Your task to perform on an android device: Open calendar and show me the second week of next month Image 0: 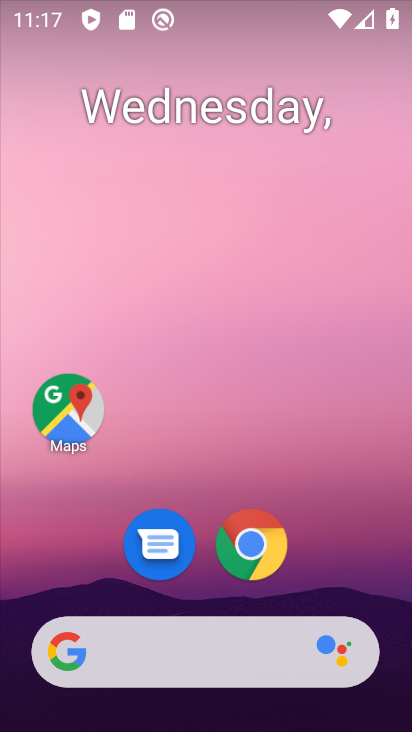
Step 0: drag from (377, 563) to (308, 108)
Your task to perform on an android device: Open calendar and show me the second week of next month Image 1: 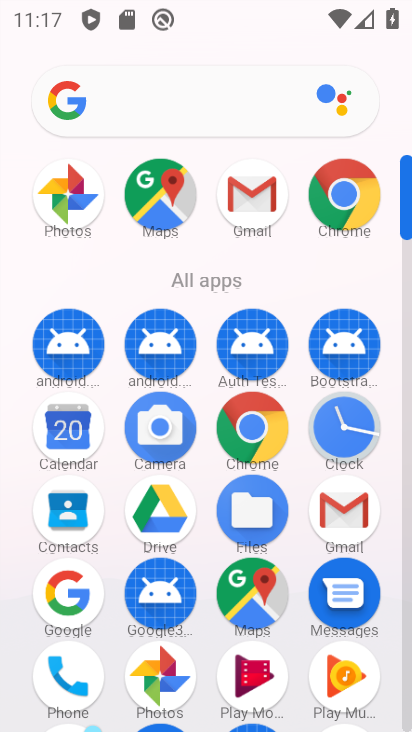
Step 1: click (92, 424)
Your task to perform on an android device: Open calendar and show me the second week of next month Image 2: 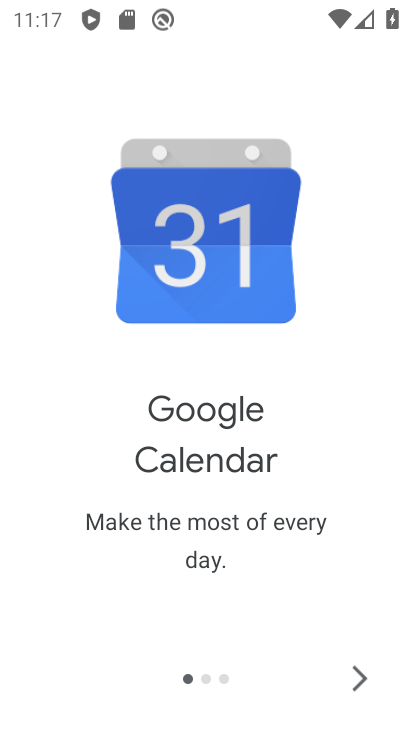
Step 2: click (369, 676)
Your task to perform on an android device: Open calendar and show me the second week of next month Image 3: 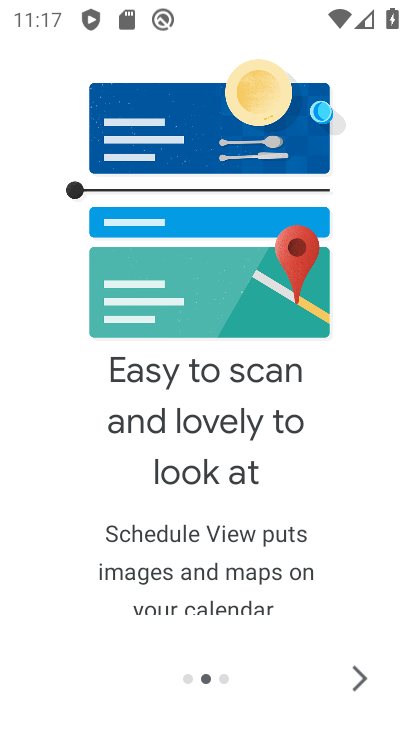
Step 3: click (364, 678)
Your task to perform on an android device: Open calendar and show me the second week of next month Image 4: 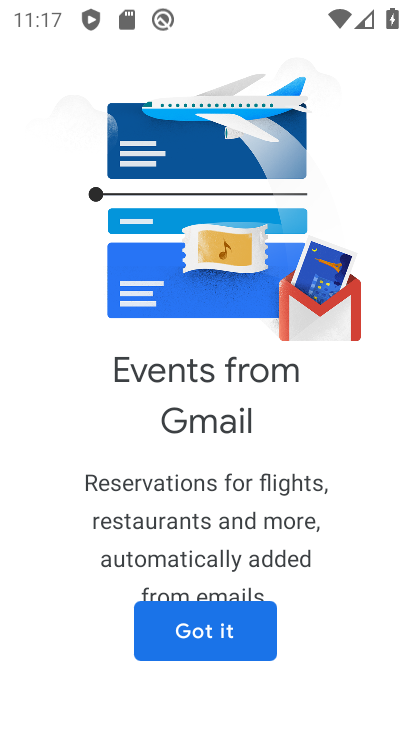
Step 4: click (226, 634)
Your task to perform on an android device: Open calendar and show me the second week of next month Image 5: 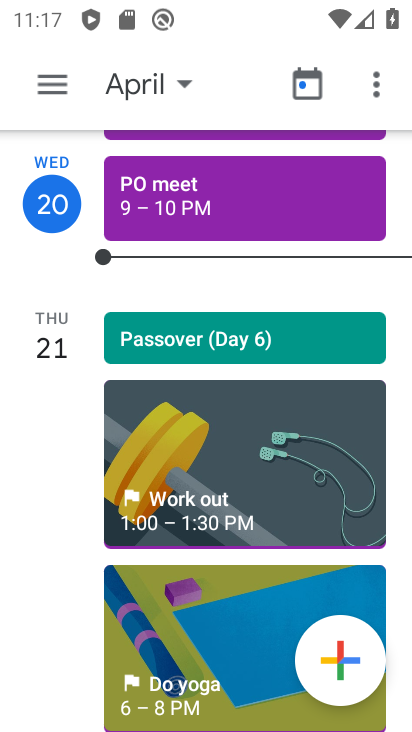
Step 5: click (175, 87)
Your task to perform on an android device: Open calendar and show me the second week of next month Image 6: 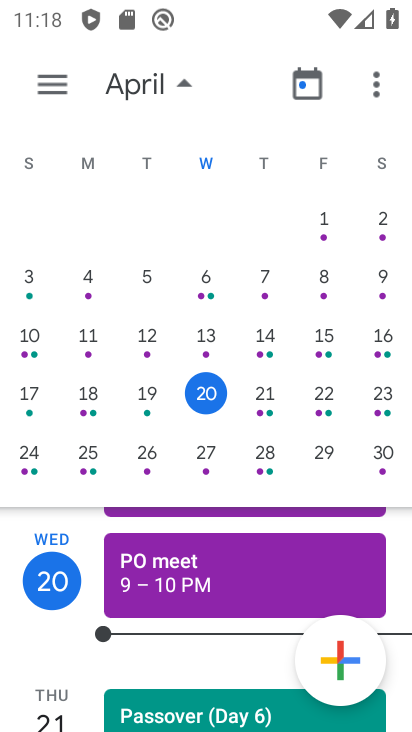
Step 6: drag from (352, 315) to (1, 374)
Your task to perform on an android device: Open calendar and show me the second week of next month Image 7: 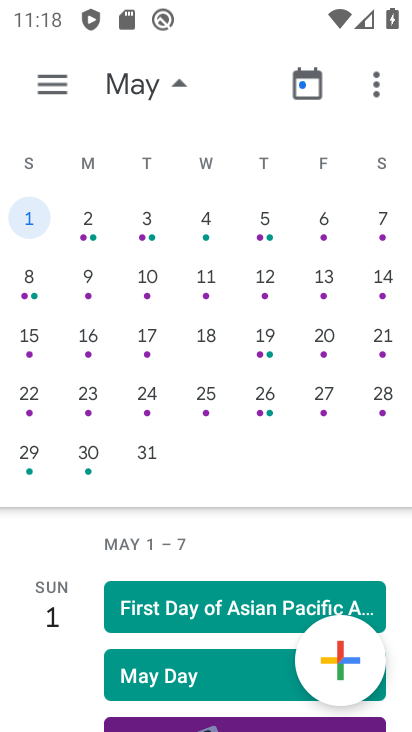
Step 7: click (43, 276)
Your task to perform on an android device: Open calendar and show me the second week of next month Image 8: 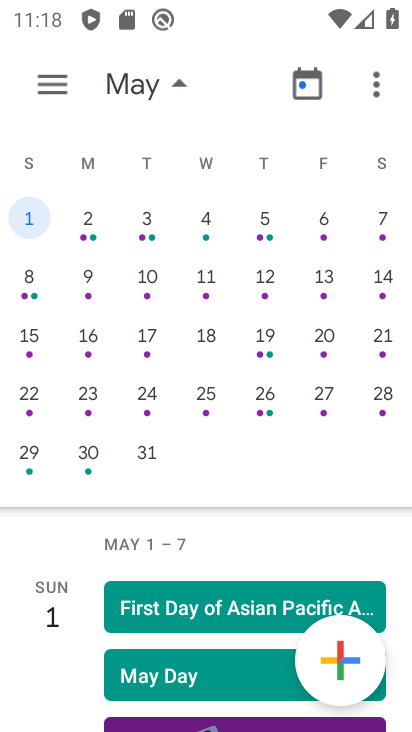
Step 8: click (38, 282)
Your task to perform on an android device: Open calendar and show me the second week of next month Image 9: 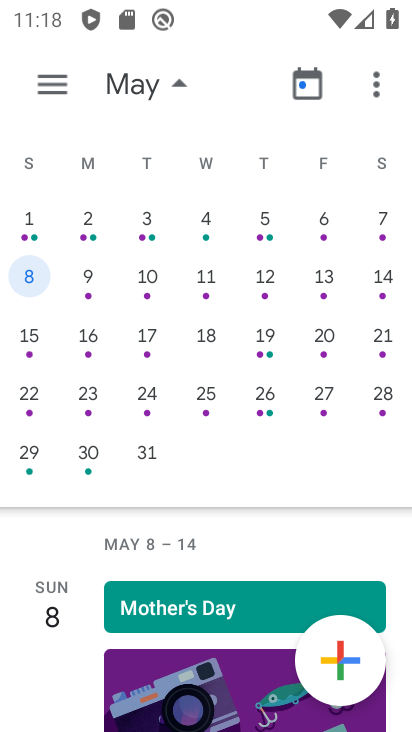
Step 9: task complete